Your task to perform on an android device: turn vacation reply on in the gmail app Image 0: 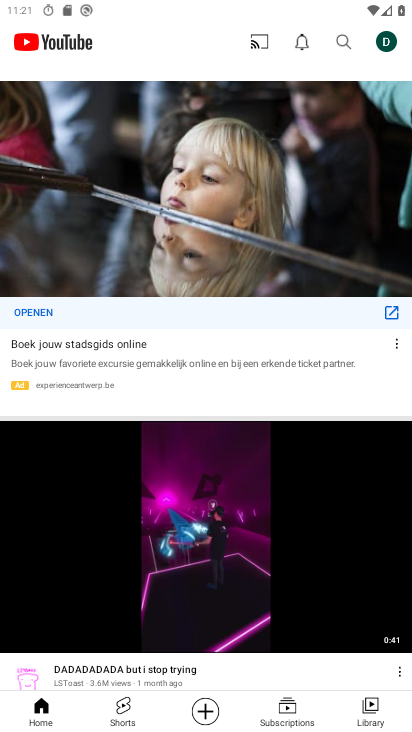
Step 0: press home button
Your task to perform on an android device: turn vacation reply on in the gmail app Image 1: 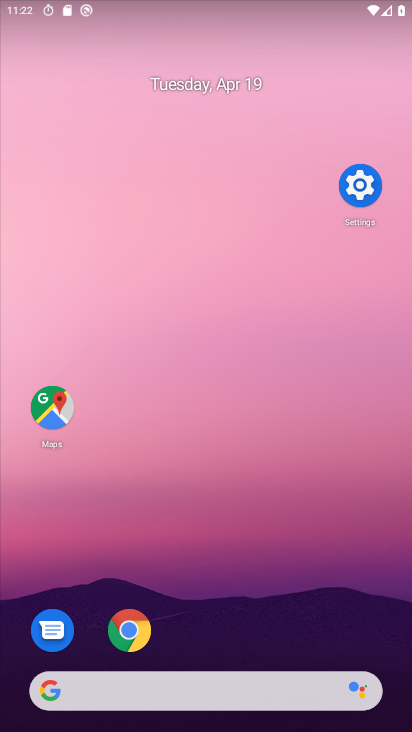
Step 1: drag from (267, 539) to (308, 161)
Your task to perform on an android device: turn vacation reply on in the gmail app Image 2: 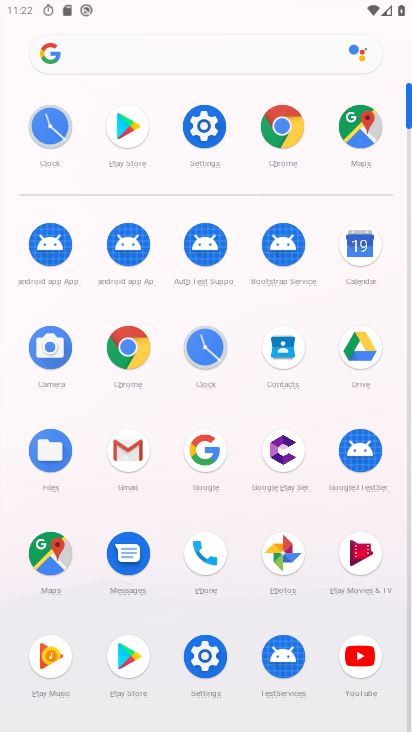
Step 2: click (132, 460)
Your task to perform on an android device: turn vacation reply on in the gmail app Image 3: 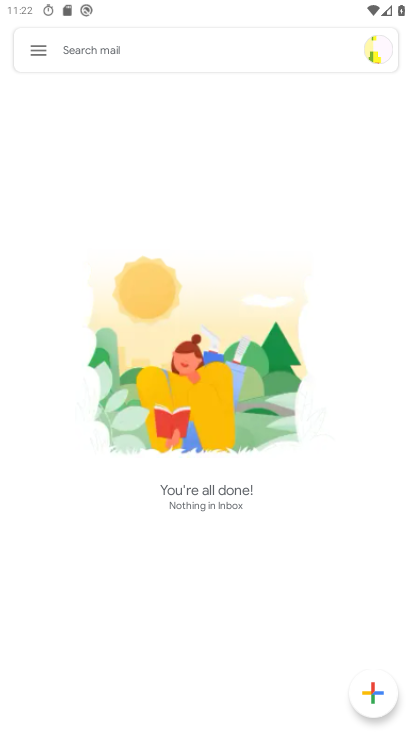
Step 3: click (41, 53)
Your task to perform on an android device: turn vacation reply on in the gmail app Image 4: 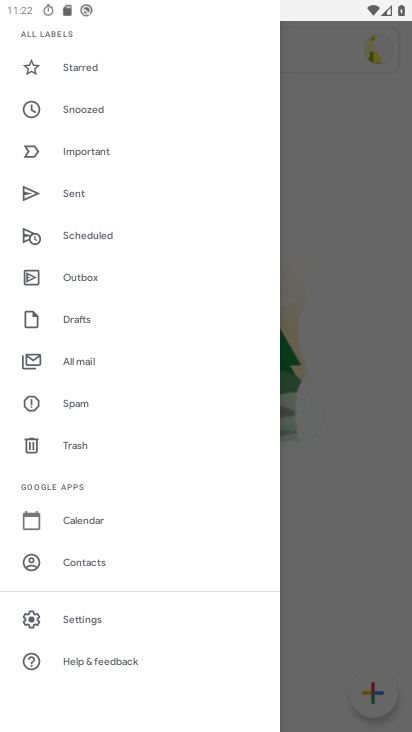
Step 4: drag from (108, 613) to (152, 442)
Your task to perform on an android device: turn vacation reply on in the gmail app Image 5: 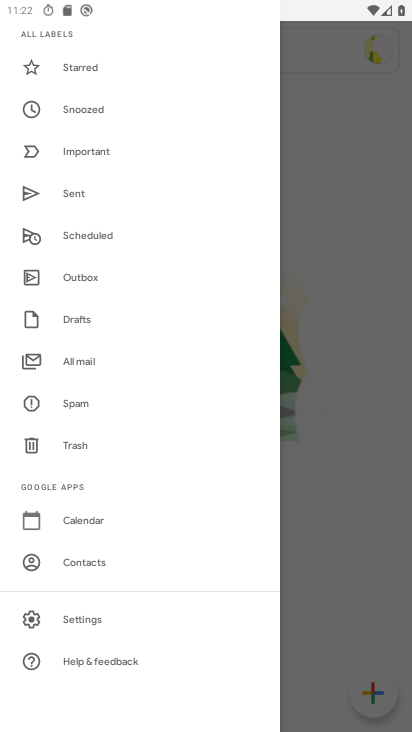
Step 5: click (121, 625)
Your task to perform on an android device: turn vacation reply on in the gmail app Image 6: 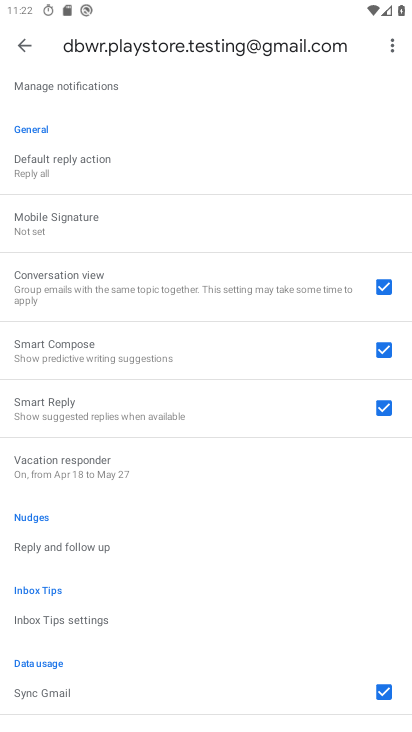
Step 6: click (215, 475)
Your task to perform on an android device: turn vacation reply on in the gmail app Image 7: 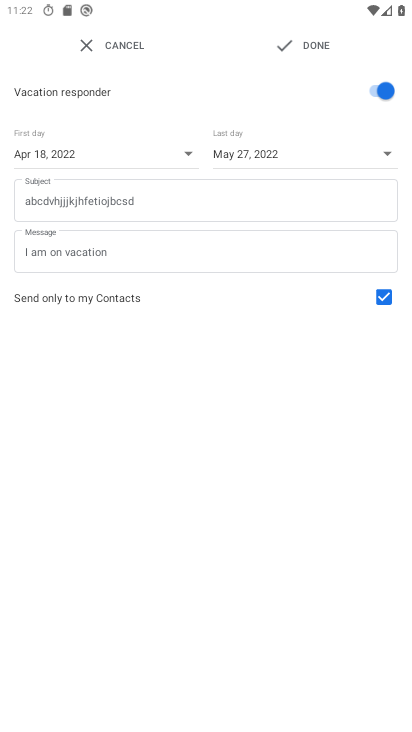
Step 7: task complete